Your task to perform on an android device: uninstall "Pinterest" Image 0: 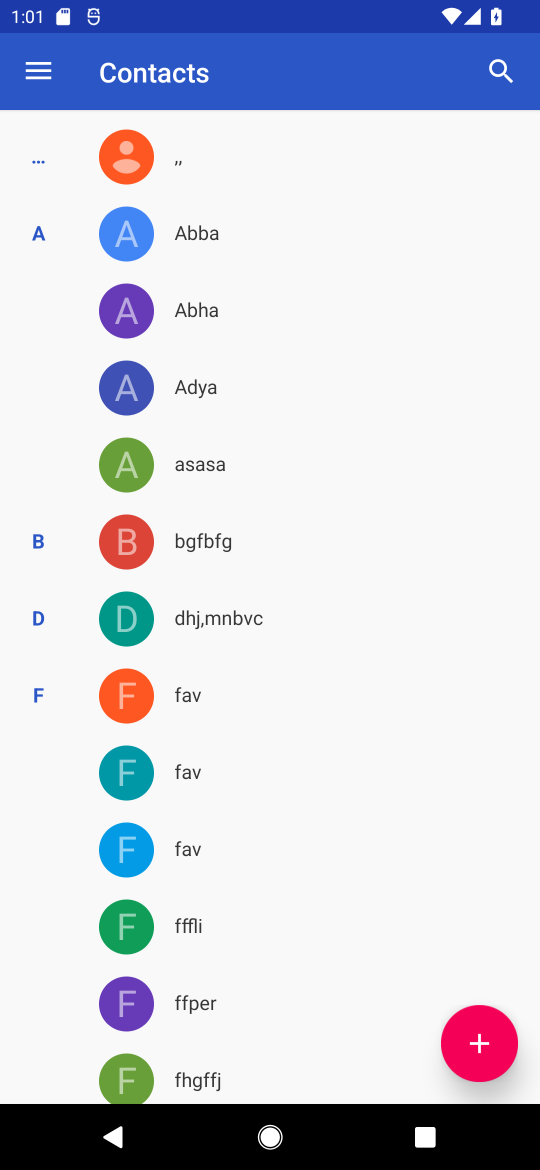
Step 0: press home button
Your task to perform on an android device: uninstall "Pinterest" Image 1: 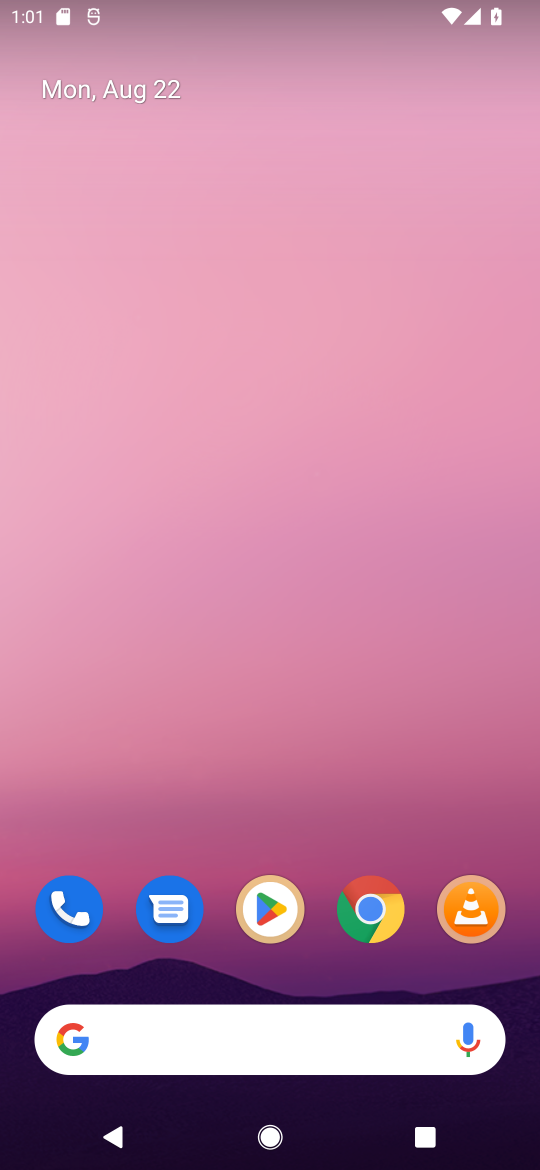
Step 1: click (259, 923)
Your task to perform on an android device: uninstall "Pinterest" Image 2: 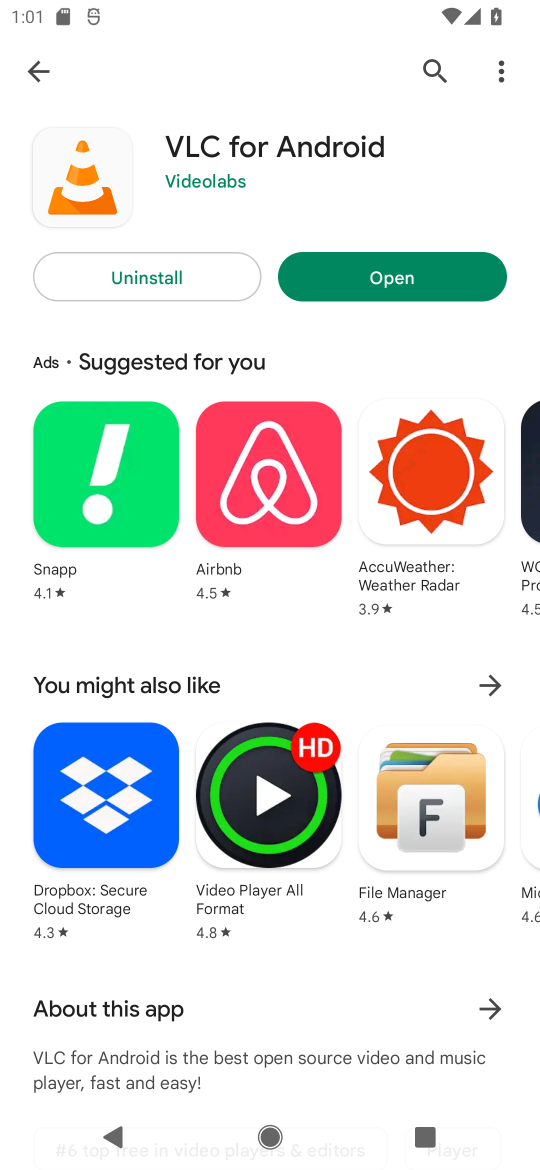
Step 2: click (442, 60)
Your task to perform on an android device: uninstall "Pinterest" Image 3: 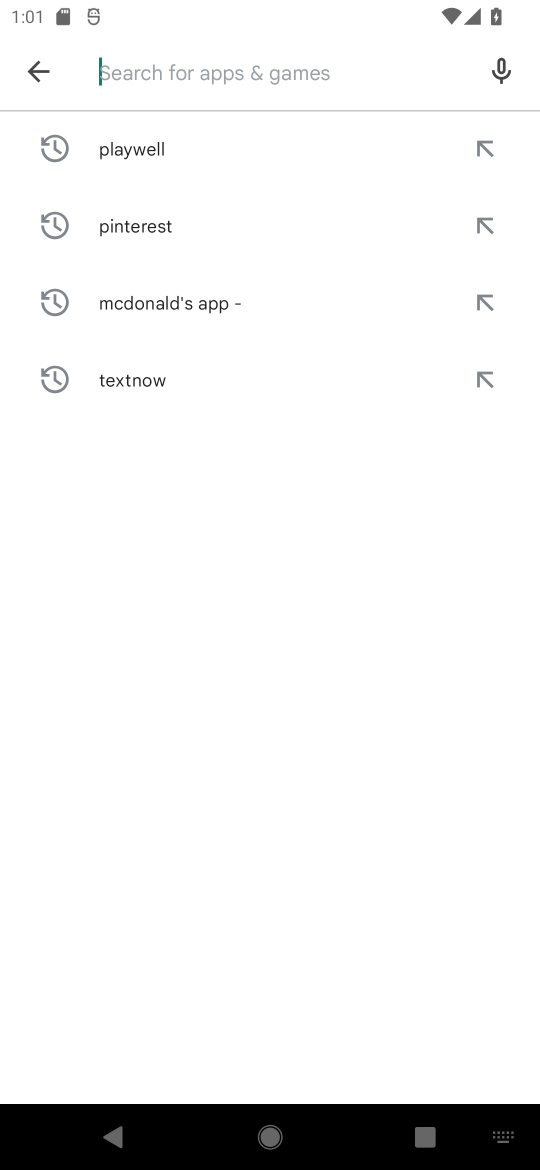
Step 3: click (148, 68)
Your task to perform on an android device: uninstall "Pinterest" Image 4: 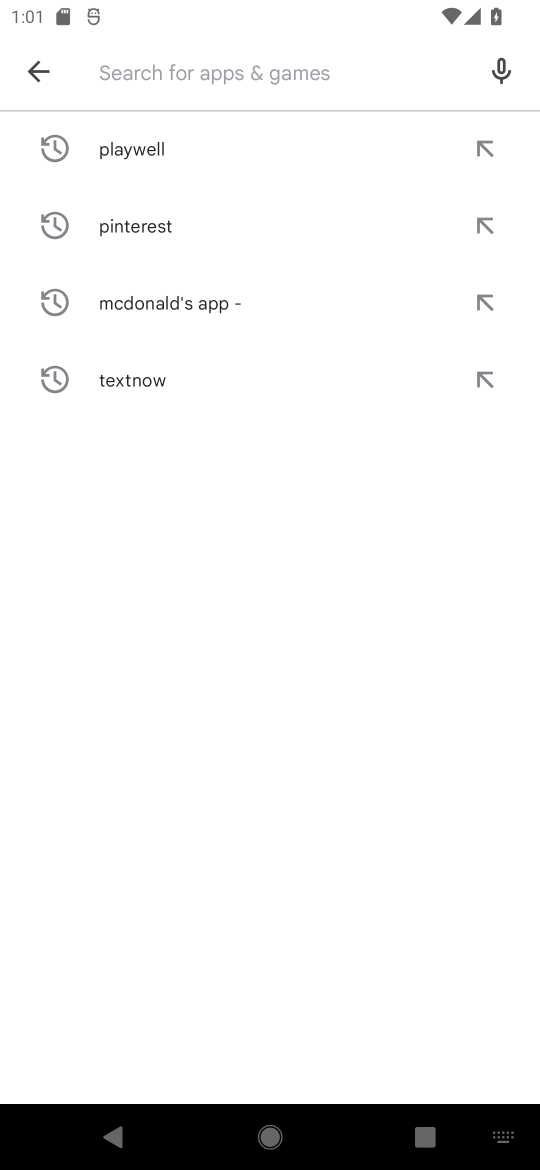
Step 4: type "Pinterest"
Your task to perform on an android device: uninstall "Pinterest" Image 5: 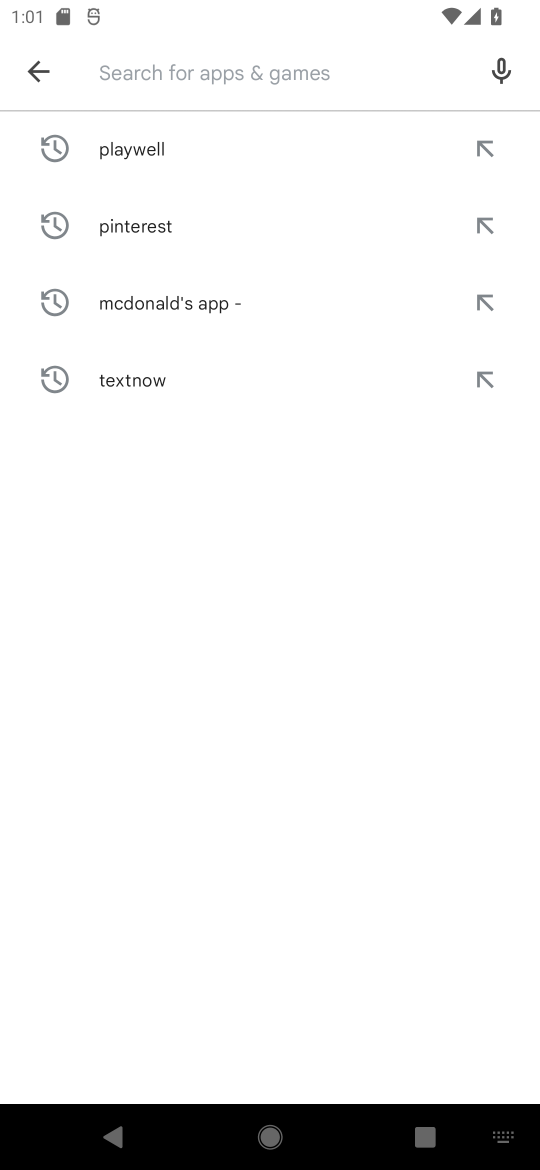
Step 5: click (287, 799)
Your task to perform on an android device: uninstall "Pinterest" Image 6: 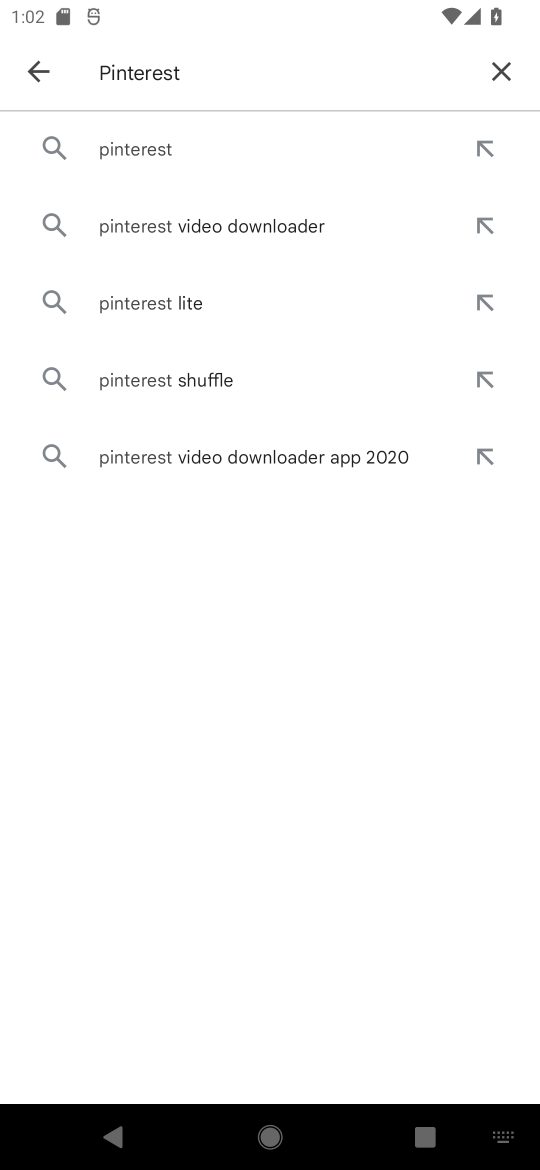
Step 6: click (109, 146)
Your task to perform on an android device: uninstall "Pinterest" Image 7: 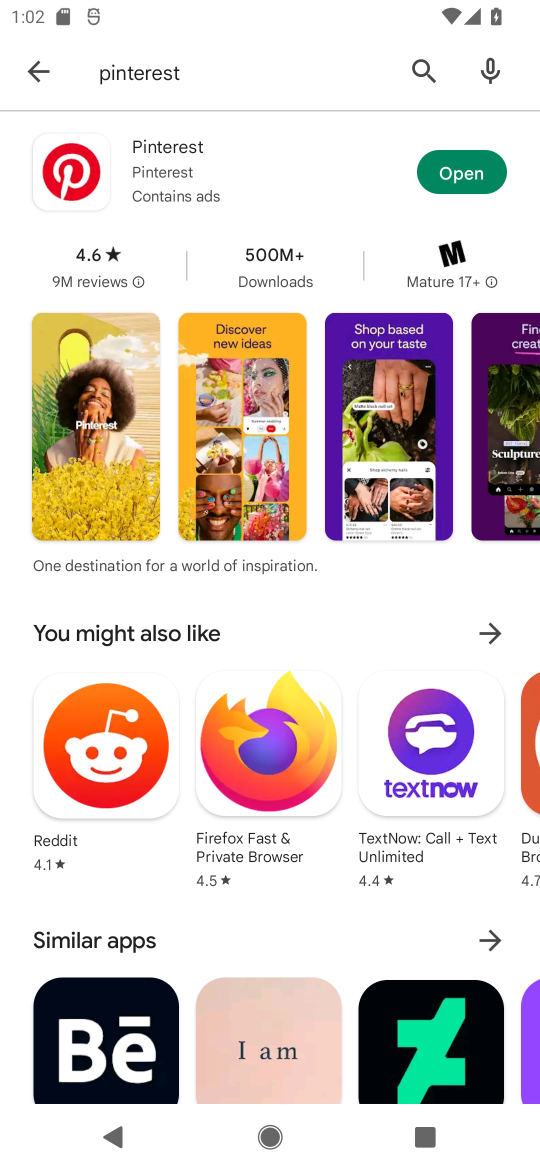
Step 7: click (201, 161)
Your task to perform on an android device: uninstall "Pinterest" Image 8: 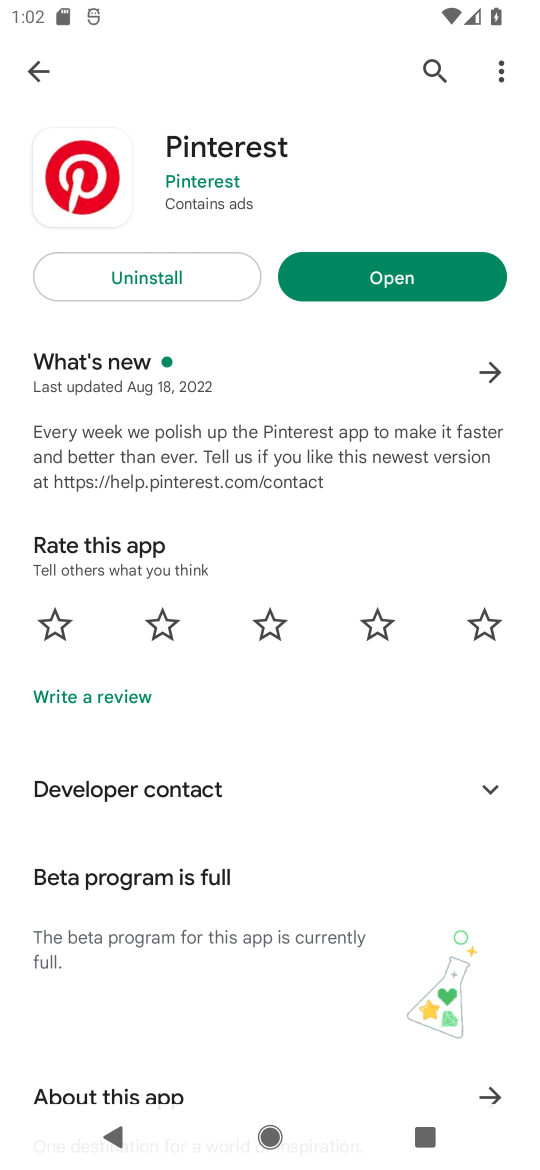
Step 8: click (149, 274)
Your task to perform on an android device: uninstall "Pinterest" Image 9: 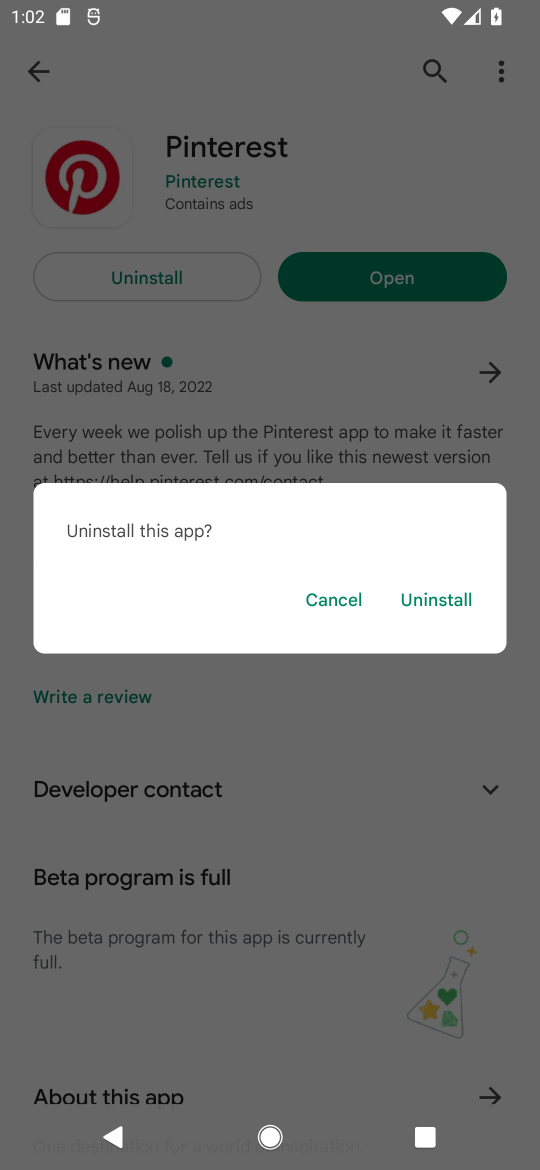
Step 9: click (440, 599)
Your task to perform on an android device: uninstall "Pinterest" Image 10: 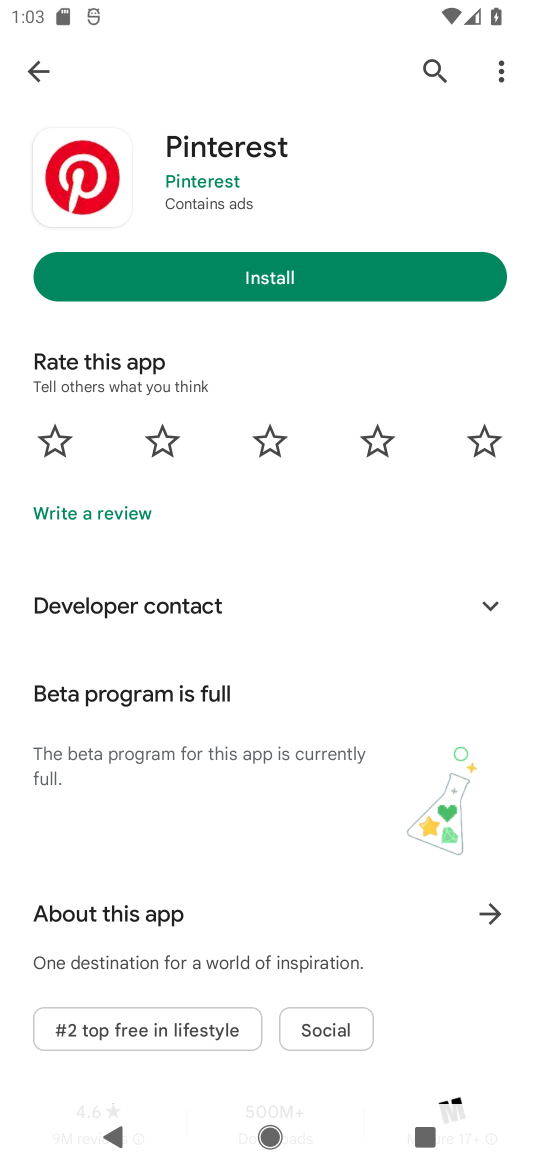
Step 10: task complete